Your task to perform on an android device: Go to Google Image 0: 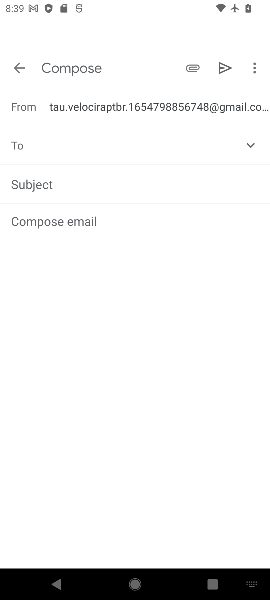
Step 0: press home button
Your task to perform on an android device: Go to Google Image 1: 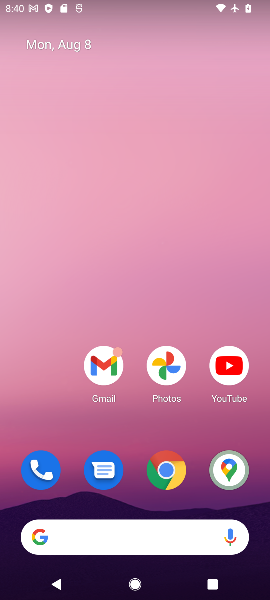
Step 1: drag from (128, 519) to (128, 170)
Your task to perform on an android device: Go to Google Image 2: 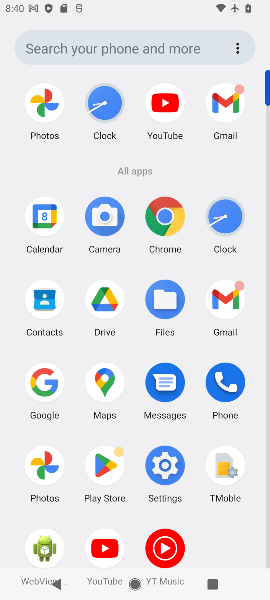
Step 2: click (41, 389)
Your task to perform on an android device: Go to Google Image 3: 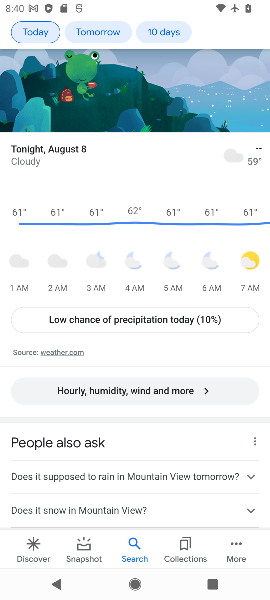
Step 3: task complete